Your task to perform on an android device: turn notification dots on Image 0: 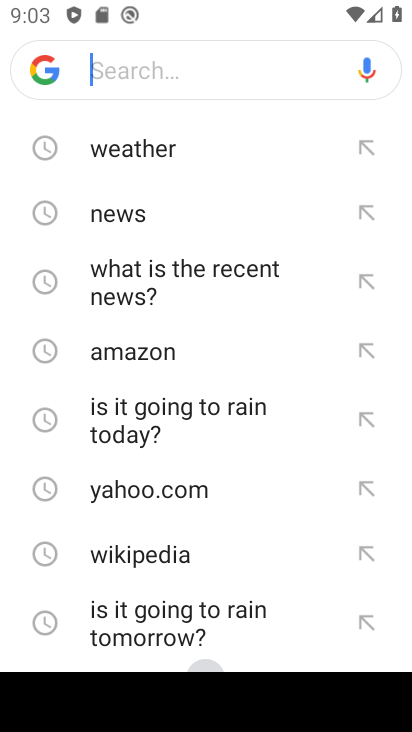
Step 0: press back button
Your task to perform on an android device: turn notification dots on Image 1: 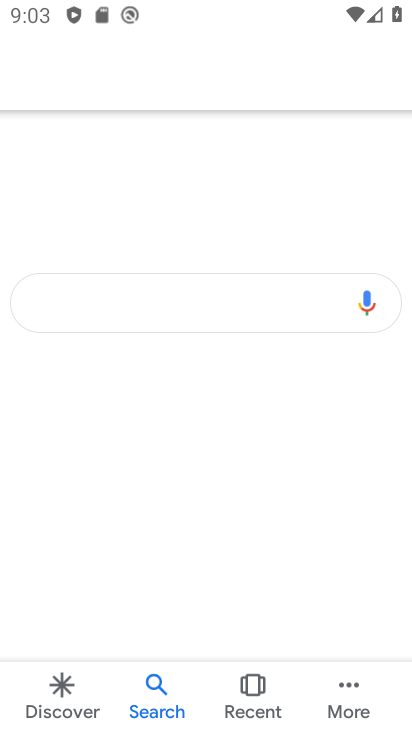
Step 1: press back button
Your task to perform on an android device: turn notification dots on Image 2: 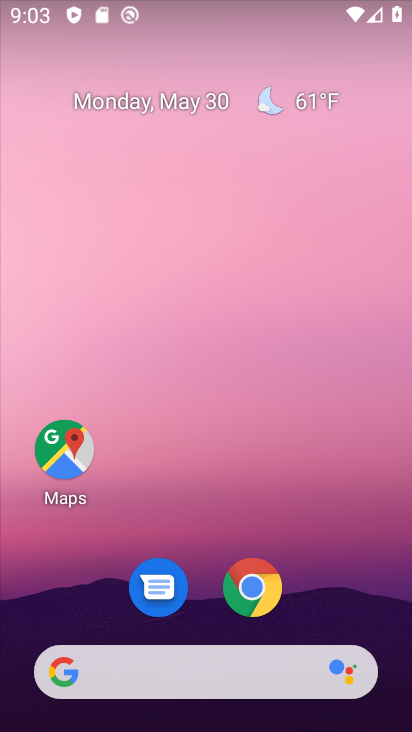
Step 2: drag from (188, 634) to (167, 16)
Your task to perform on an android device: turn notification dots on Image 3: 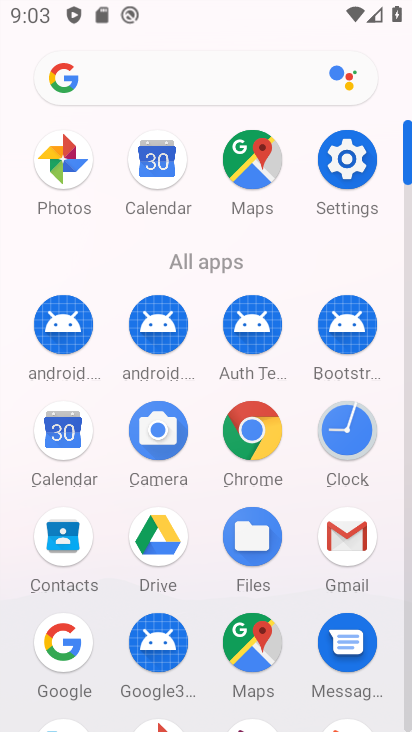
Step 3: click (355, 162)
Your task to perform on an android device: turn notification dots on Image 4: 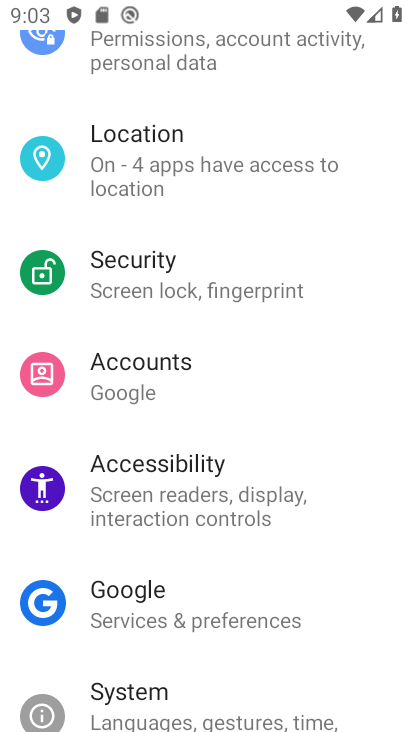
Step 4: drag from (162, 208) to (151, 543)
Your task to perform on an android device: turn notification dots on Image 5: 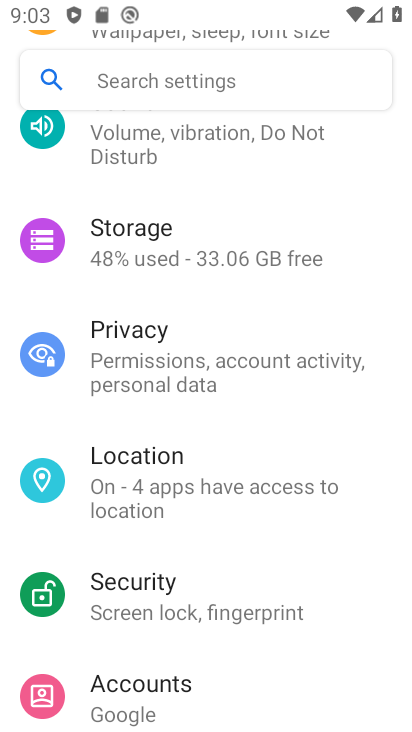
Step 5: drag from (166, 203) to (172, 501)
Your task to perform on an android device: turn notification dots on Image 6: 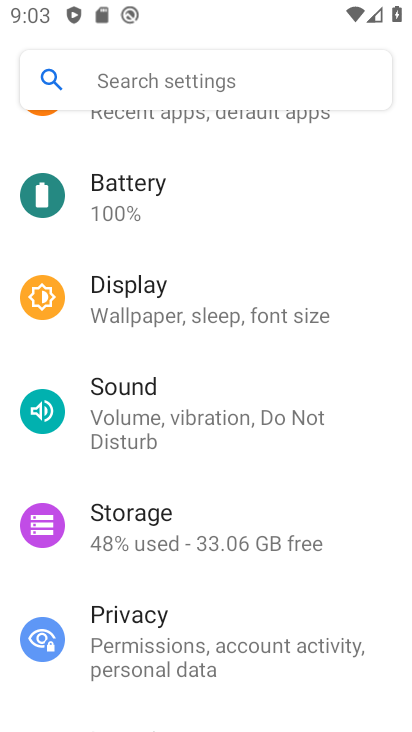
Step 6: drag from (210, 223) to (205, 566)
Your task to perform on an android device: turn notification dots on Image 7: 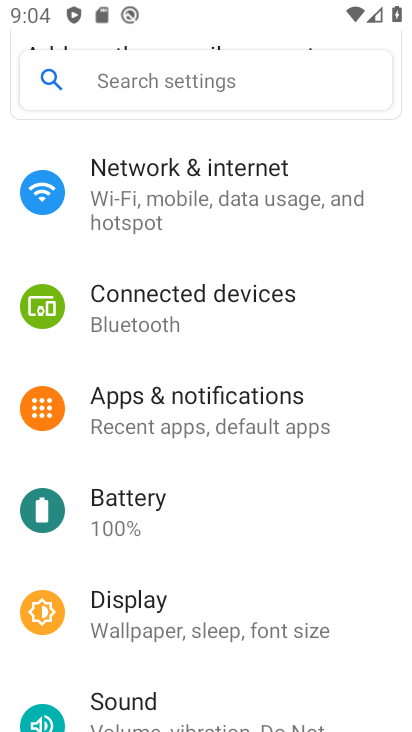
Step 7: click (209, 420)
Your task to perform on an android device: turn notification dots on Image 8: 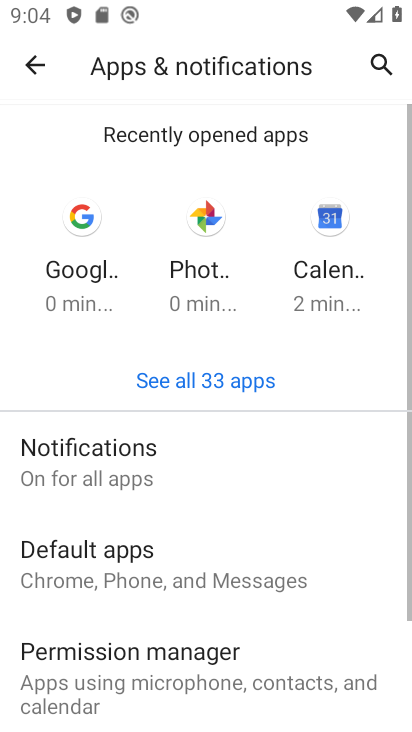
Step 8: click (157, 477)
Your task to perform on an android device: turn notification dots on Image 9: 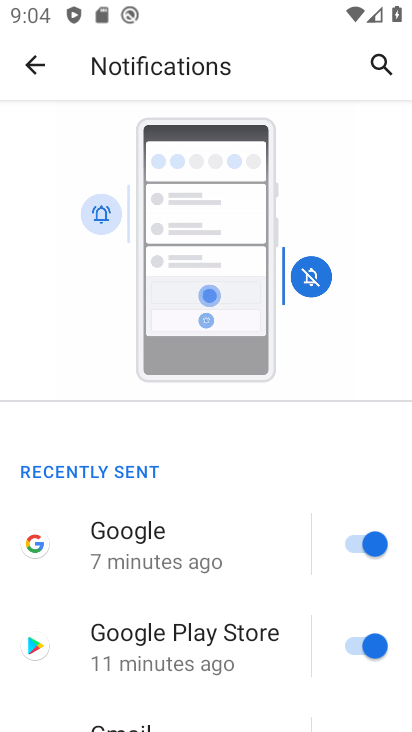
Step 9: drag from (217, 594) to (223, 2)
Your task to perform on an android device: turn notification dots on Image 10: 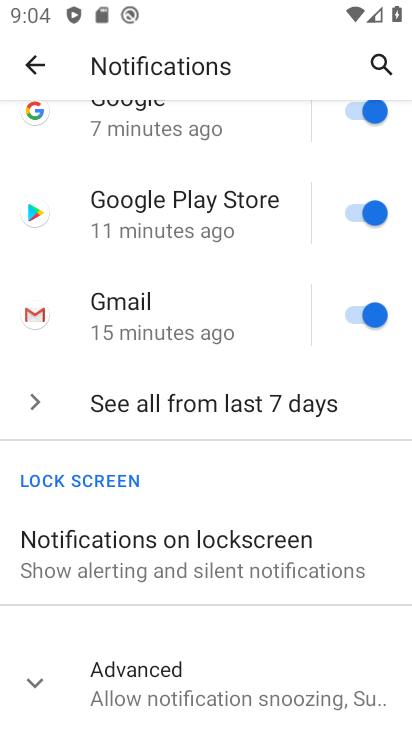
Step 10: click (195, 662)
Your task to perform on an android device: turn notification dots on Image 11: 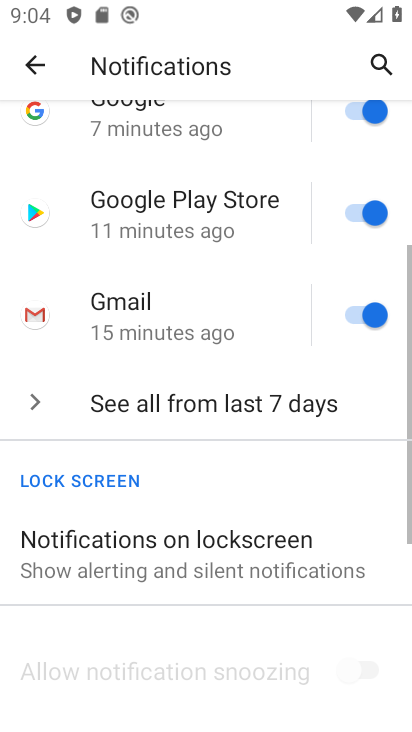
Step 11: task complete